Your task to perform on an android device: turn on airplane mode Image 0: 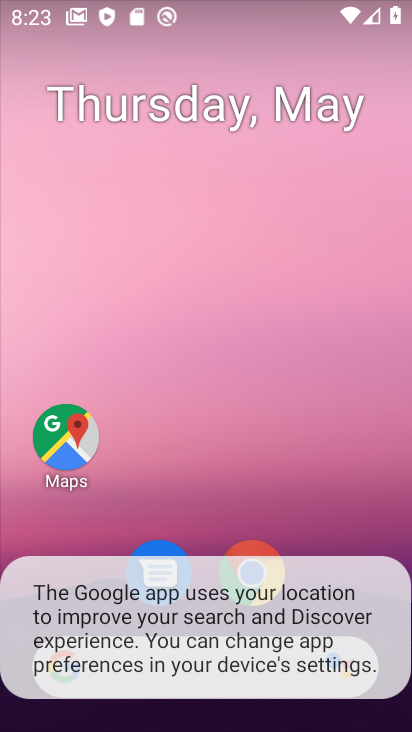
Step 0: drag from (366, 511) to (392, 98)
Your task to perform on an android device: turn on airplane mode Image 1: 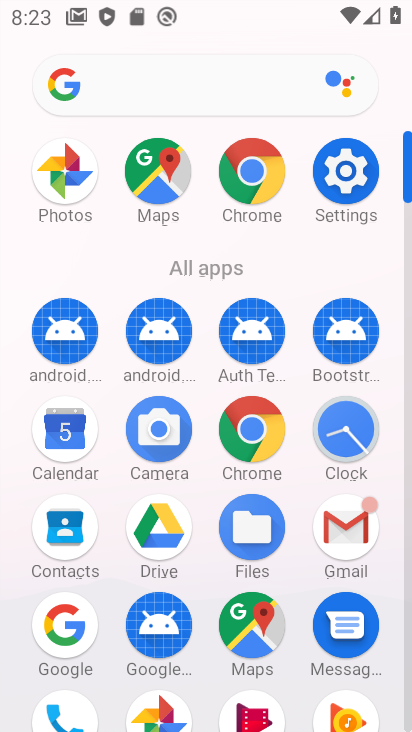
Step 1: click (357, 173)
Your task to perform on an android device: turn on airplane mode Image 2: 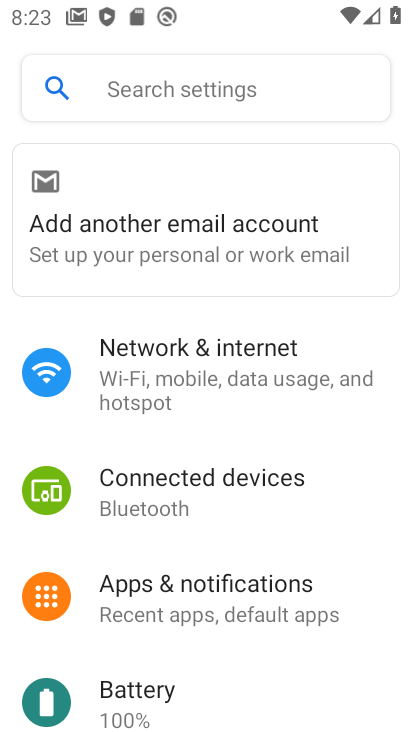
Step 2: click (206, 404)
Your task to perform on an android device: turn on airplane mode Image 3: 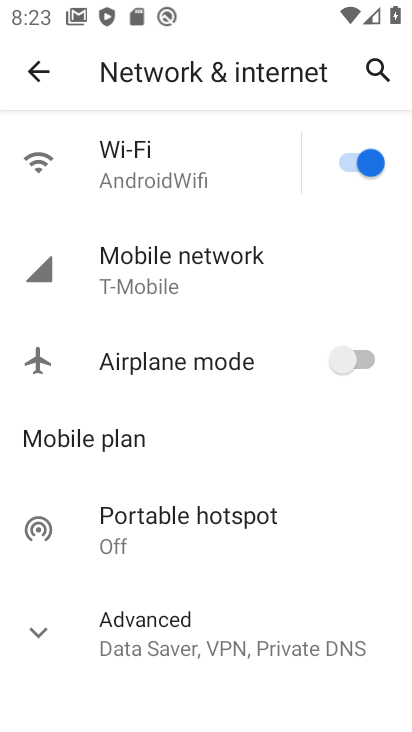
Step 3: click (335, 361)
Your task to perform on an android device: turn on airplane mode Image 4: 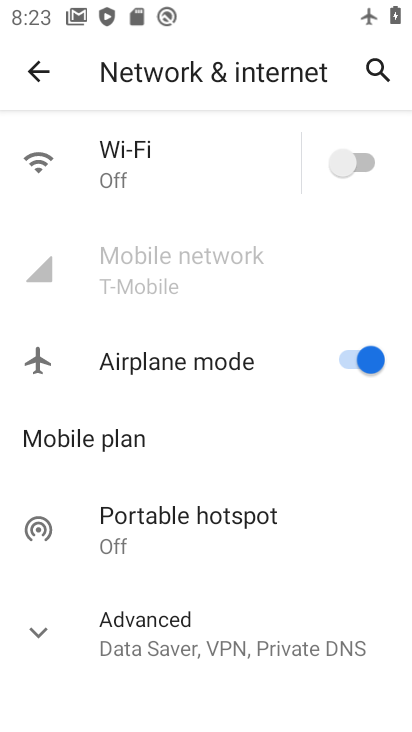
Step 4: task complete